Your task to perform on an android device: change the upload size in google photos Image 0: 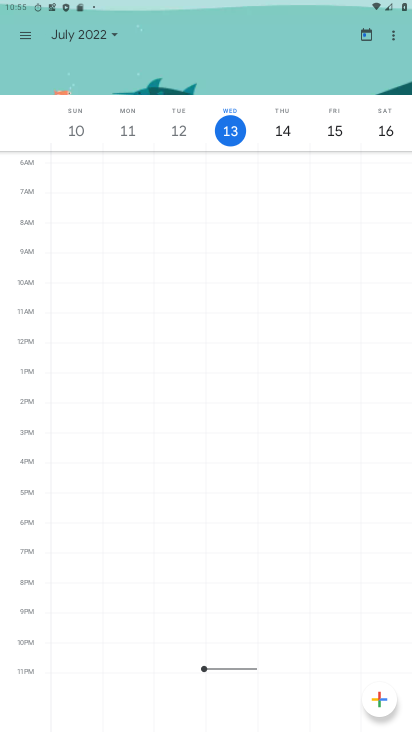
Step 0: press home button
Your task to perform on an android device: change the upload size in google photos Image 1: 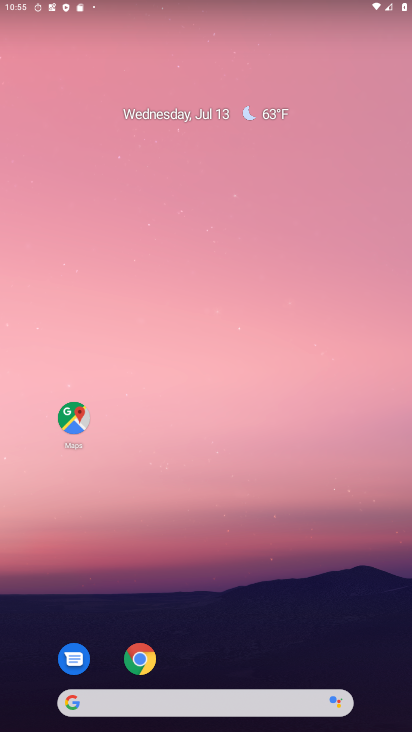
Step 1: drag from (255, 474) to (309, 166)
Your task to perform on an android device: change the upload size in google photos Image 2: 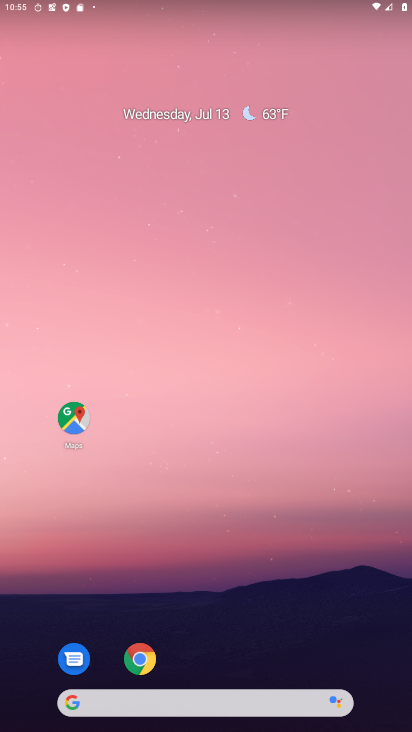
Step 2: drag from (310, 598) to (300, 121)
Your task to perform on an android device: change the upload size in google photos Image 3: 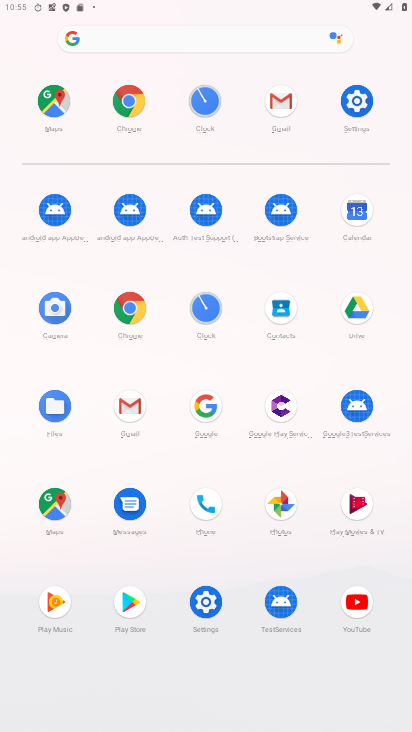
Step 3: click (283, 502)
Your task to perform on an android device: change the upload size in google photos Image 4: 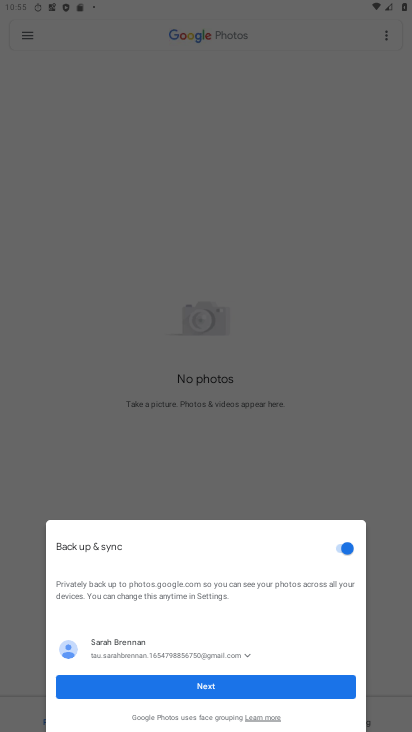
Step 4: click (304, 691)
Your task to perform on an android device: change the upload size in google photos Image 5: 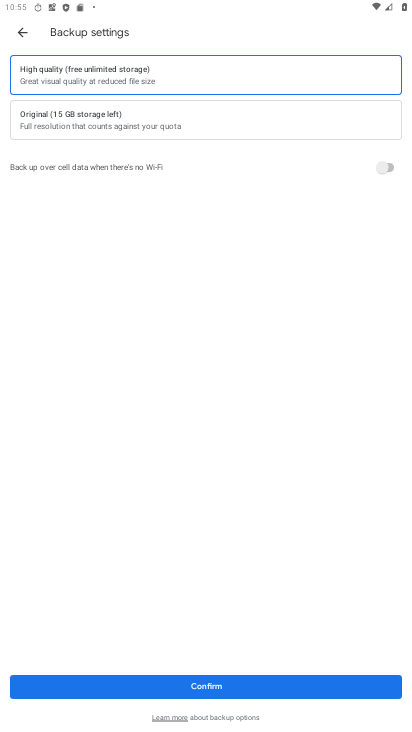
Step 5: click (165, 116)
Your task to perform on an android device: change the upload size in google photos Image 6: 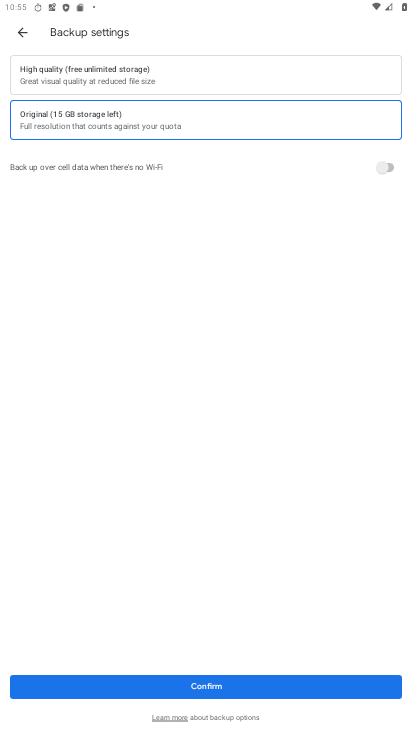
Step 6: click (170, 681)
Your task to perform on an android device: change the upload size in google photos Image 7: 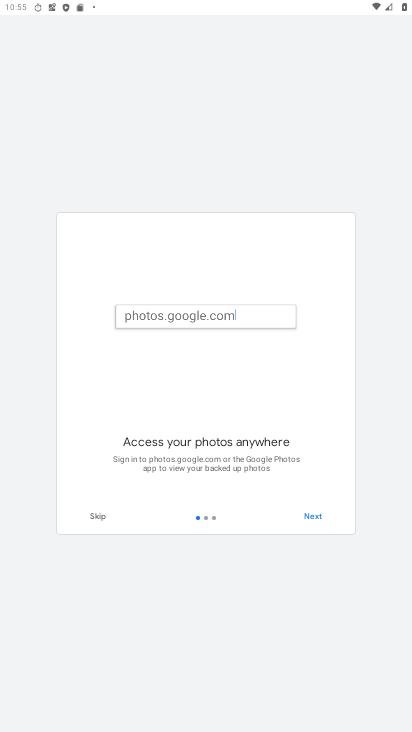
Step 7: task complete